Your task to perform on an android device: toggle priority inbox in the gmail app Image 0: 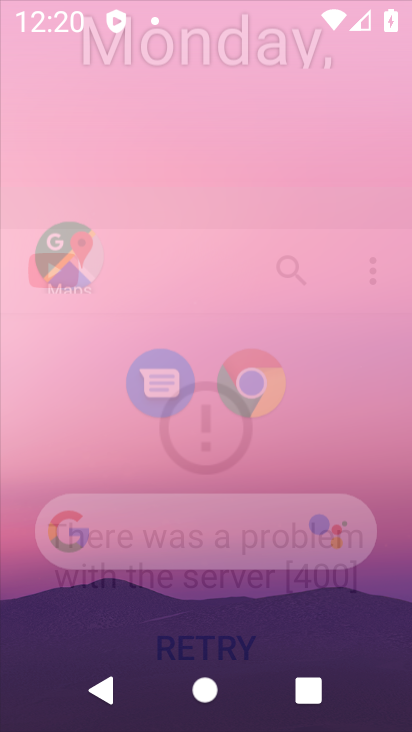
Step 0: click (256, 439)
Your task to perform on an android device: toggle priority inbox in the gmail app Image 1: 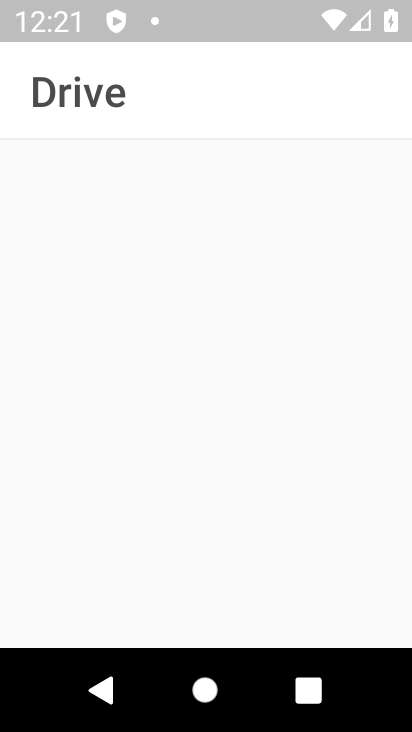
Step 1: press home button
Your task to perform on an android device: toggle priority inbox in the gmail app Image 2: 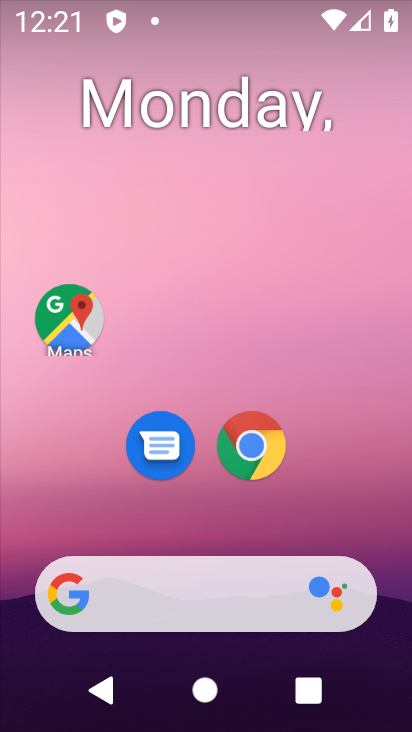
Step 2: drag from (354, 531) to (317, 81)
Your task to perform on an android device: toggle priority inbox in the gmail app Image 3: 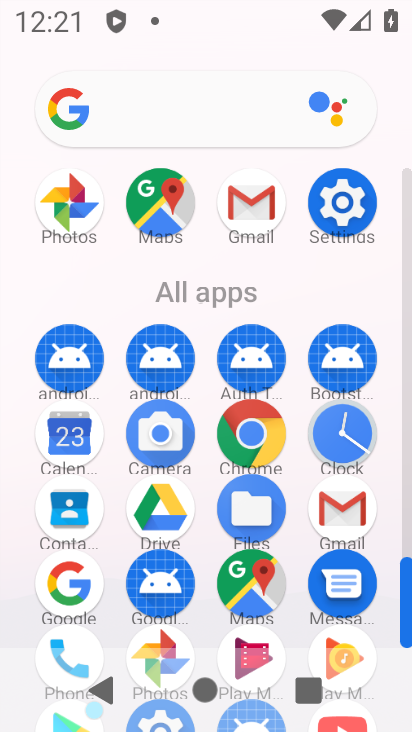
Step 3: click (252, 207)
Your task to perform on an android device: toggle priority inbox in the gmail app Image 4: 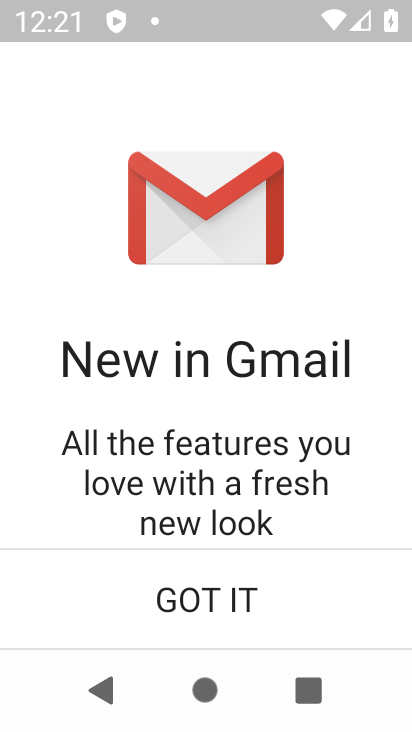
Step 4: click (204, 600)
Your task to perform on an android device: toggle priority inbox in the gmail app Image 5: 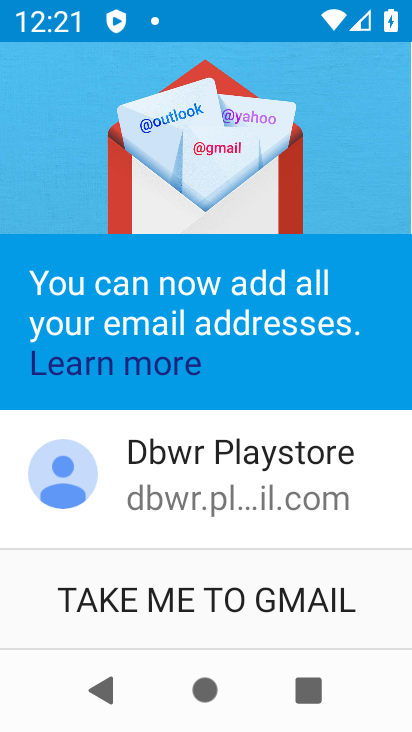
Step 5: click (204, 600)
Your task to perform on an android device: toggle priority inbox in the gmail app Image 6: 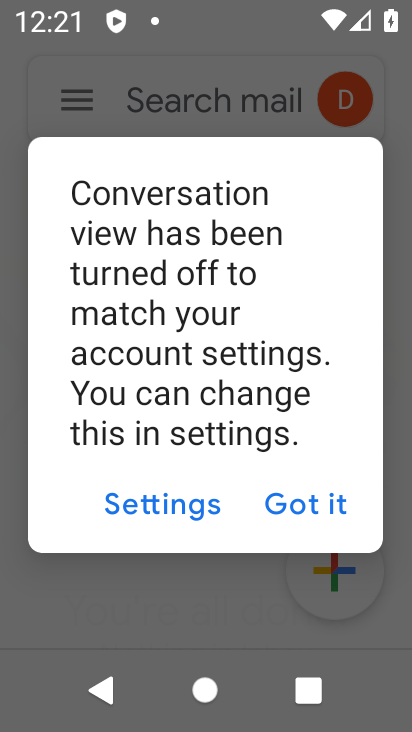
Step 6: click (302, 502)
Your task to perform on an android device: toggle priority inbox in the gmail app Image 7: 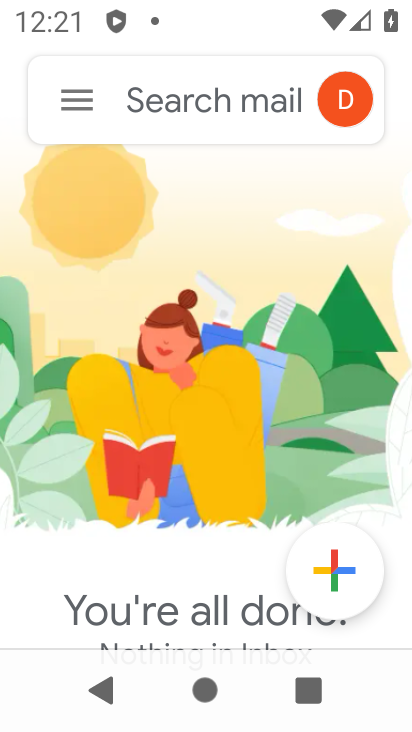
Step 7: click (79, 105)
Your task to perform on an android device: toggle priority inbox in the gmail app Image 8: 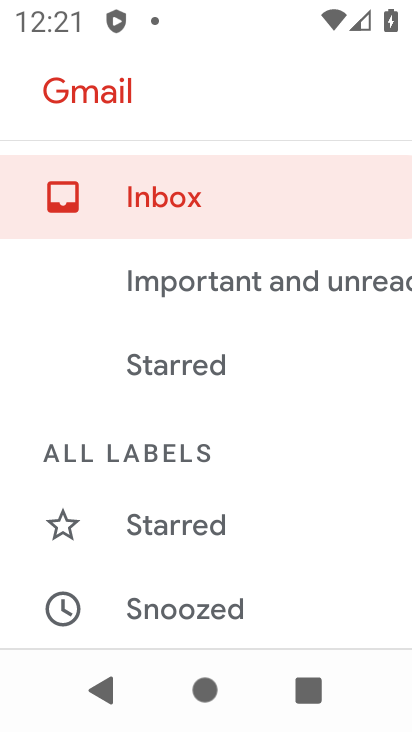
Step 8: drag from (198, 490) to (216, 355)
Your task to perform on an android device: toggle priority inbox in the gmail app Image 9: 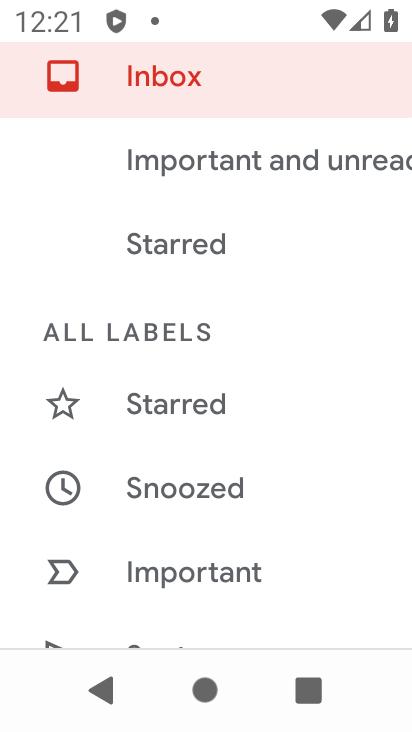
Step 9: drag from (183, 449) to (230, 335)
Your task to perform on an android device: toggle priority inbox in the gmail app Image 10: 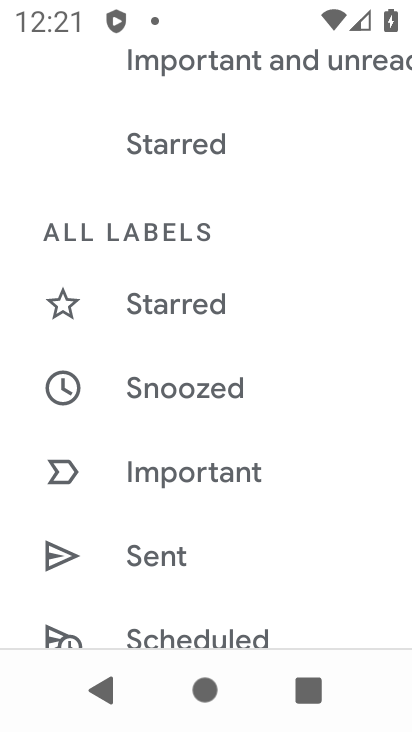
Step 10: drag from (184, 415) to (196, 298)
Your task to perform on an android device: toggle priority inbox in the gmail app Image 11: 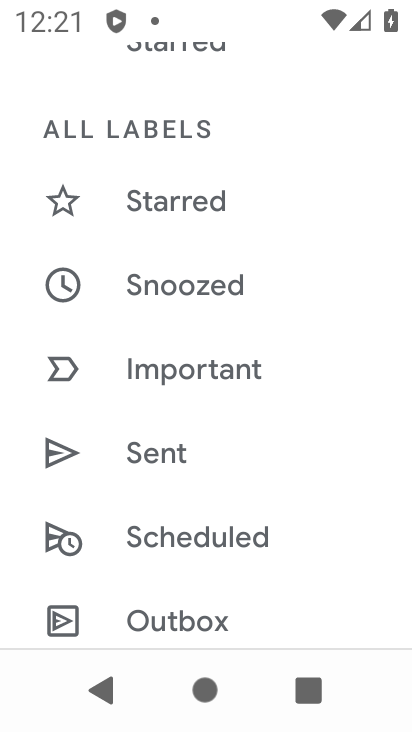
Step 11: drag from (170, 408) to (233, 299)
Your task to perform on an android device: toggle priority inbox in the gmail app Image 12: 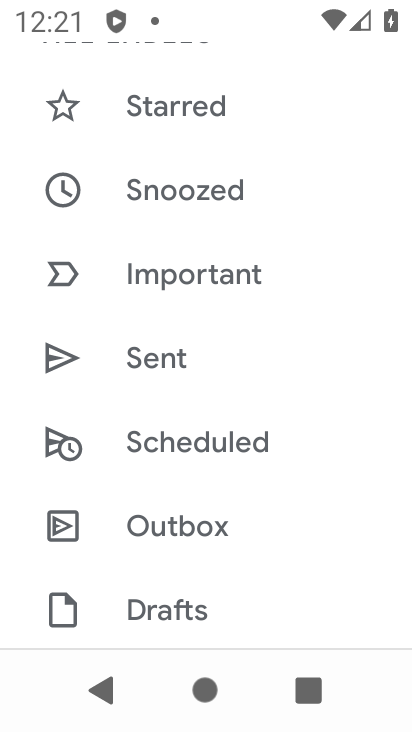
Step 12: drag from (186, 384) to (245, 302)
Your task to perform on an android device: toggle priority inbox in the gmail app Image 13: 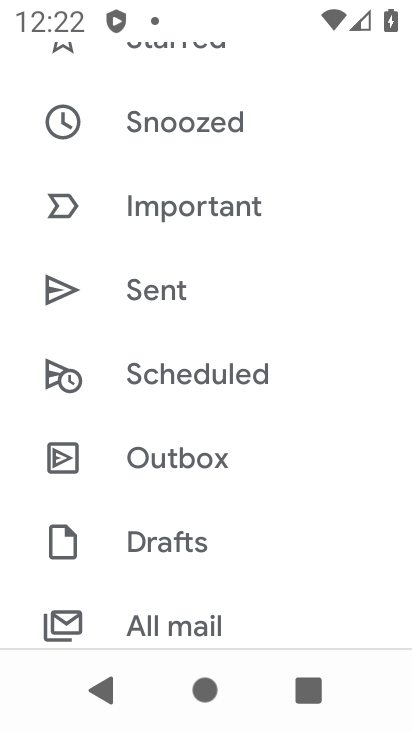
Step 13: drag from (169, 496) to (259, 333)
Your task to perform on an android device: toggle priority inbox in the gmail app Image 14: 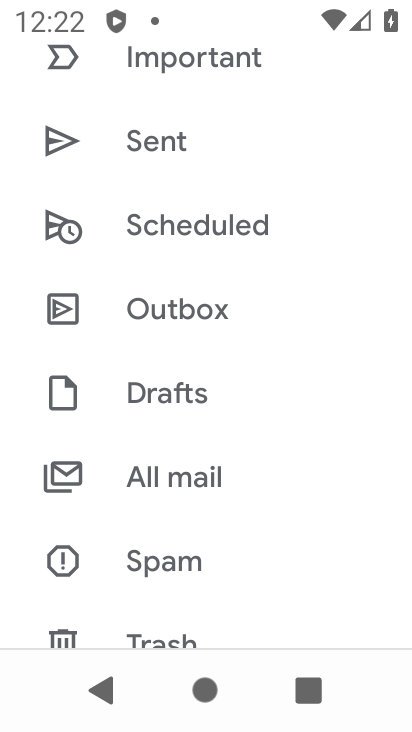
Step 14: drag from (172, 436) to (241, 296)
Your task to perform on an android device: toggle priority inbox in the gmail app Image 15: 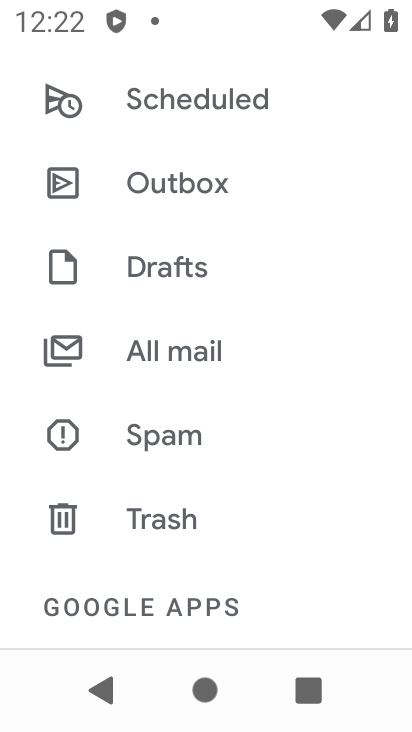
Step 15: drag from (162, 402) to (243, 263)
Your task to perform on an android device: toggle priority inbox in the gmail app Image 16: 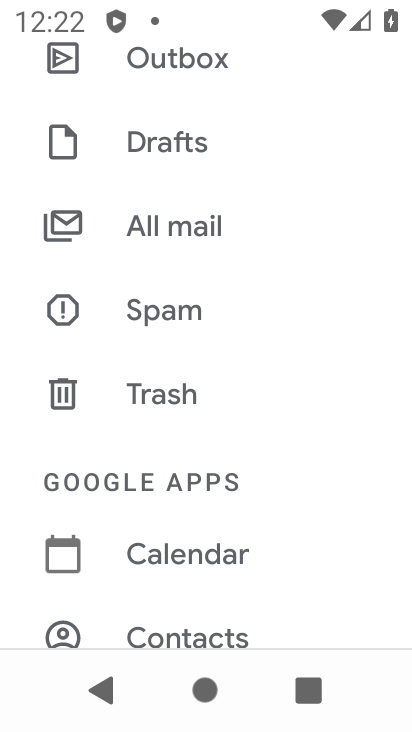
Step 16: drag from (157, 366) to (228, 244)
Your task to perform on an android device: toggle priority inbox in the gmail app Image 17: 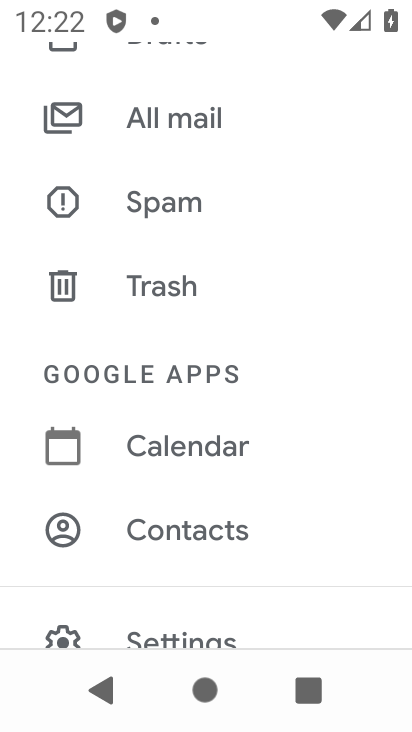
Step 17: drag from (157, 472) to (238, 327)
Your task to perform on an android device: toggle priority inbox in the gmail app Image 18: 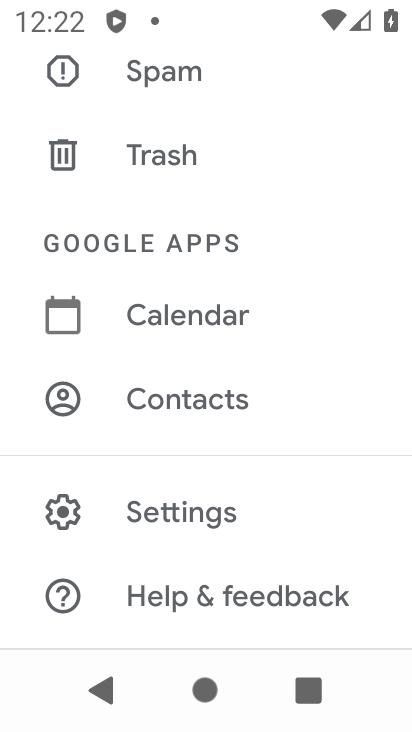
Step 18: click (203, 511)
Your task to perform on an android device: toggle priority inbox in the gmail app Image 19: 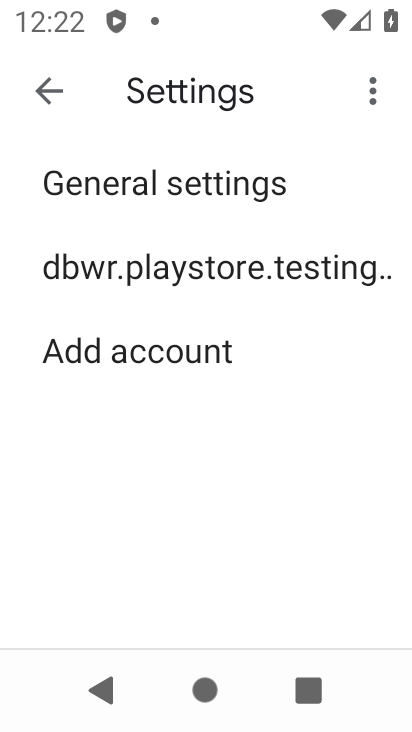
Step 19: click (183, 278)
Your task to perform on an android device: toggle priority inbox in the gmail app Image 20: 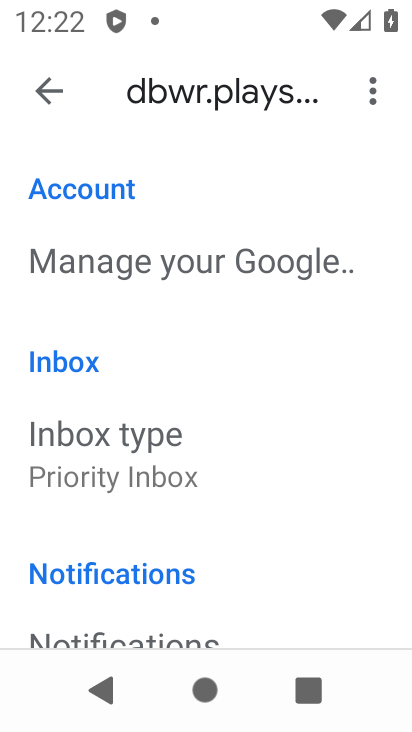
Step 20: click (129, 470)
Your task to perform on an android device: toggle priority inbox in the gmail app Image 21: 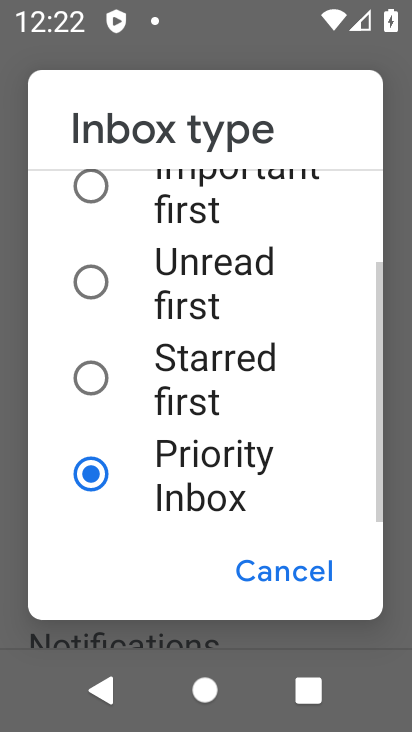
Step 21: click (105, 379)
Your task to perform on an android device: toggle priority inbox in the gmail app Image 22: 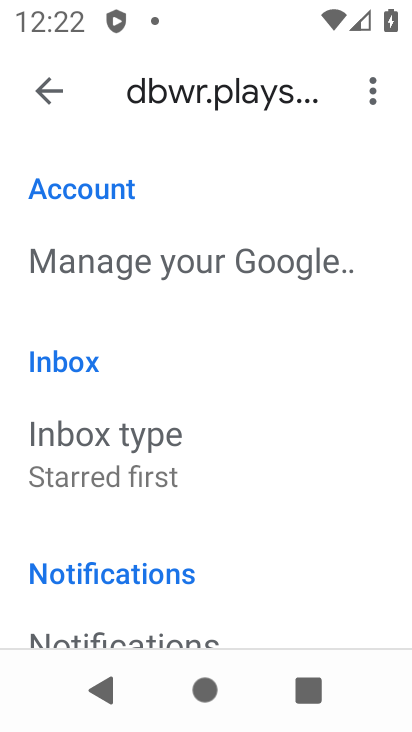
Step 22: task complete